Your task to perform on an android device: Go to location settings Image 0: 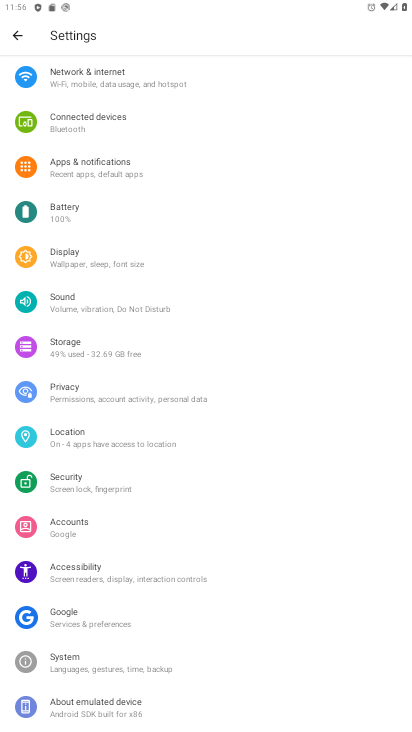
Step 0: click (71, 437)
Your task to perform on an android device: Go to location settings Image 1: 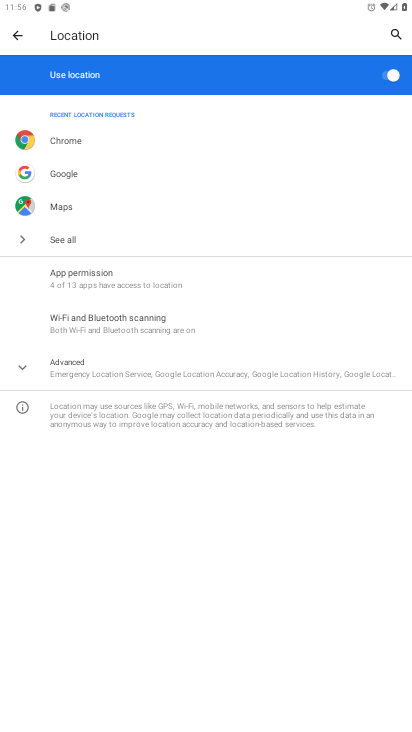
Step 1: task complete